Your task to perform on an android device: turn on improve location accuracy Image 0: 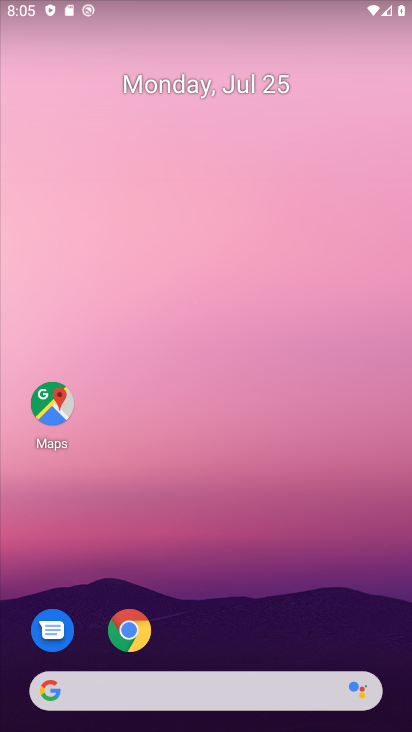
Step 0: click (254, 7)
Your task to perform on an android device: turn on improve location accuracy Image 1: 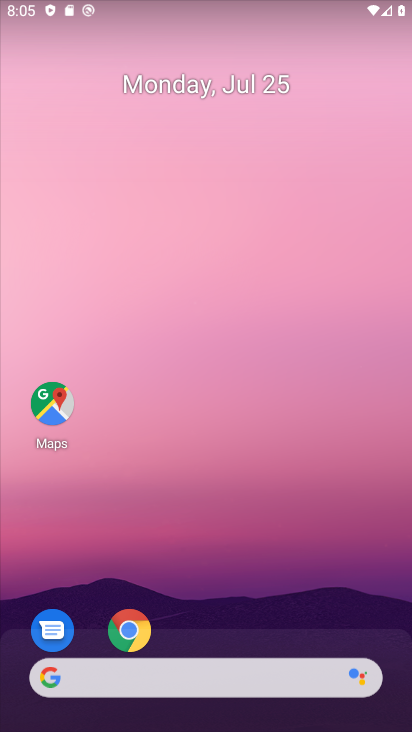
Step 1: drag from (18, 682) to (208, 95)
Your task to perform on an android device: turn on improve location accuracy Image 2: 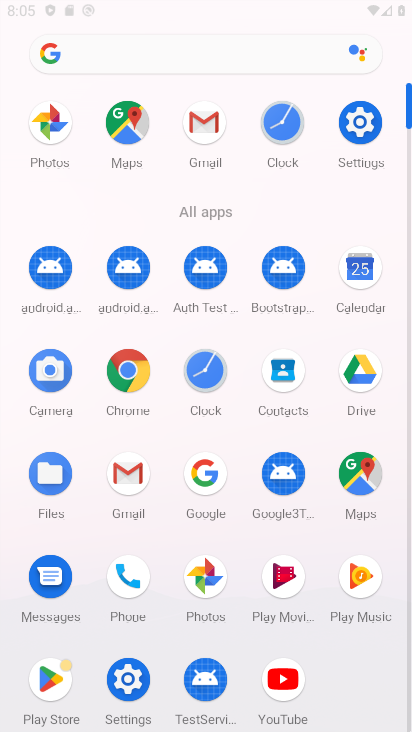
Step 2: drag from (135, 438) to (170, 314)
Your task to perform on an android device: turn on improve location accuracy Image 3: 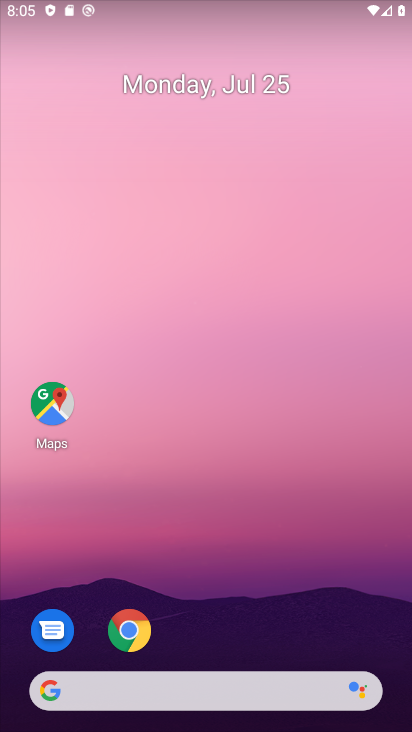
Step 3: drag from (115, 483) to (289, 113)
Your task to perform on an android device: turn on improve location accuracy Image 4: 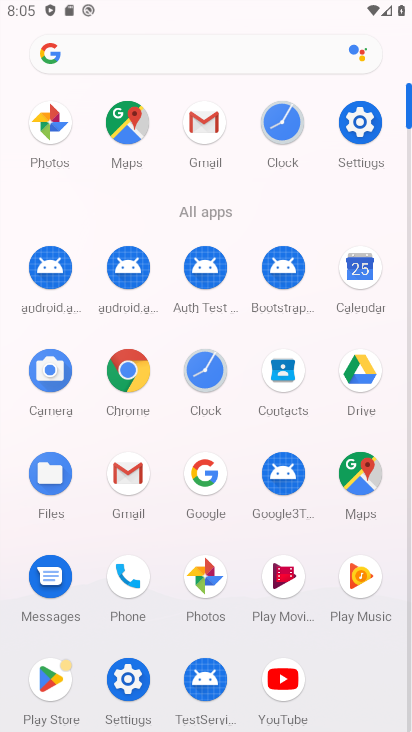
Step 4: click (127, 685)
Your task to perform on an android device: turn on improve location accuracy Image 5: 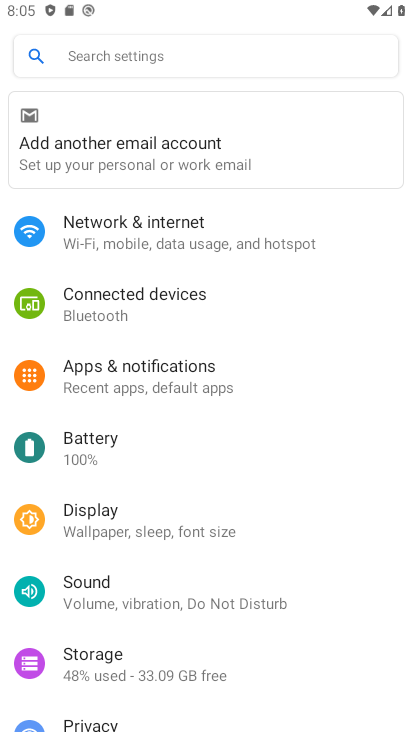
Step 5: drag from (284, 348) to (303, 253)
Your task to perform on an android device: turn on improve location accuracy Image 6: 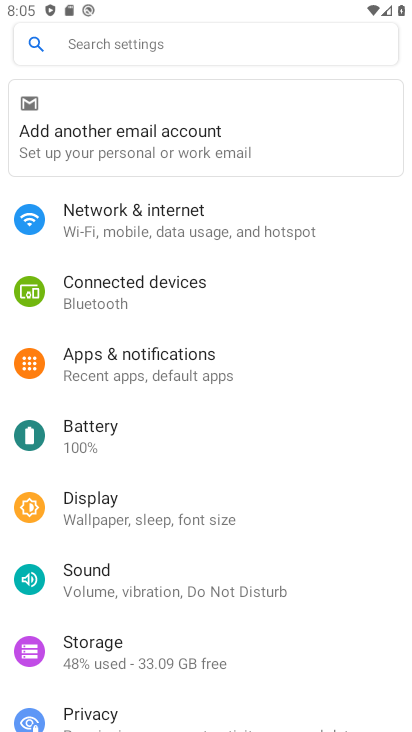
Step 6: drag from (161, 691) to (240, 312)
Your task to perform on an android device: turn on improve location accuracy Image 7: 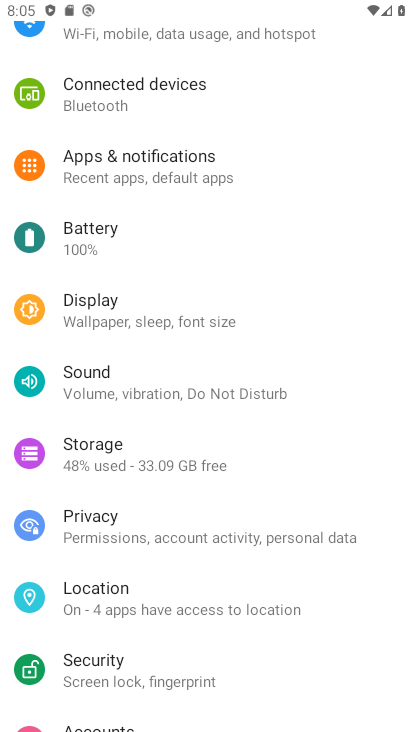
Step 7: click (119, 591)
Your task to perform on an android device: turn on improve location accuracy Image 8: 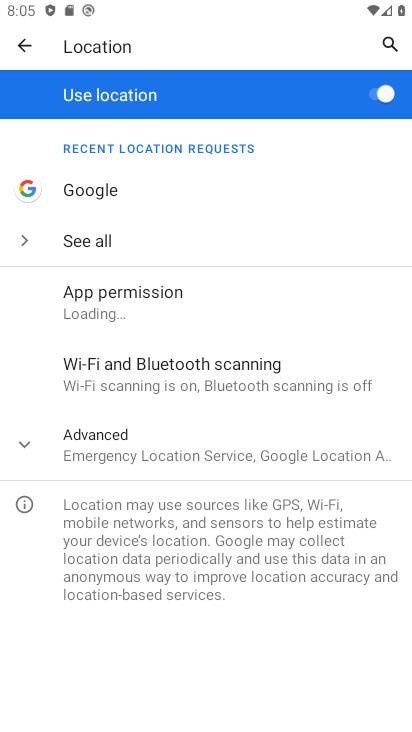
Step 8: click (120, 458)
Your task to perform on an android device: turn on improve location accuracy Image 9: 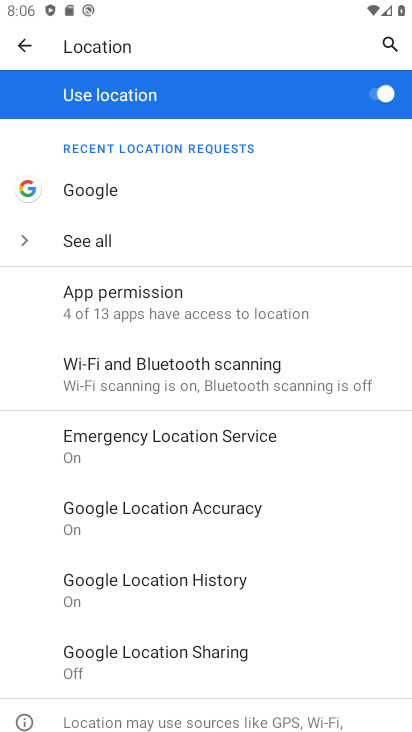
Step 9: task complete